Your task to perform on an android device: Open calendar and show me the fourth week of next month Image 0: 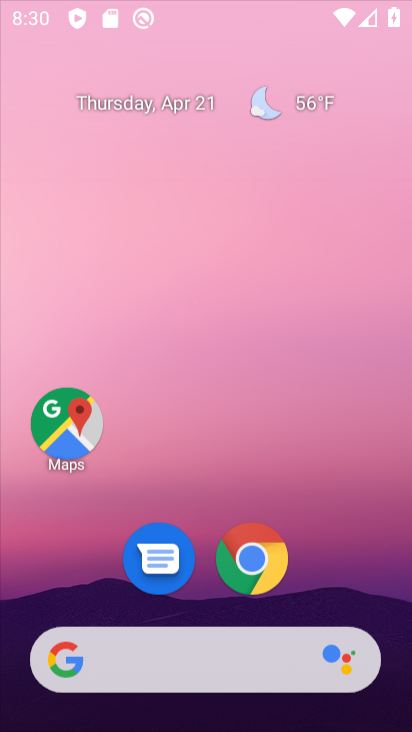
Step 0: click (293, 158)
Your task to perform on an android device: Open calendar and show me the fourth week of next month Image 1: 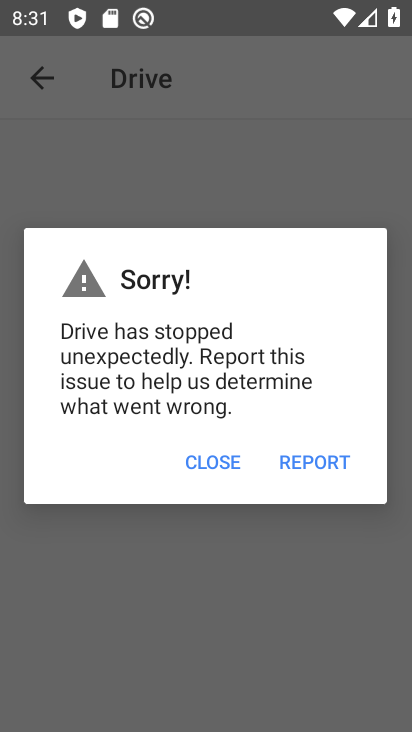
Step 1: press home button
Your task to perform on an android device: Open calendar and show me the fourth week of next month Image 2: 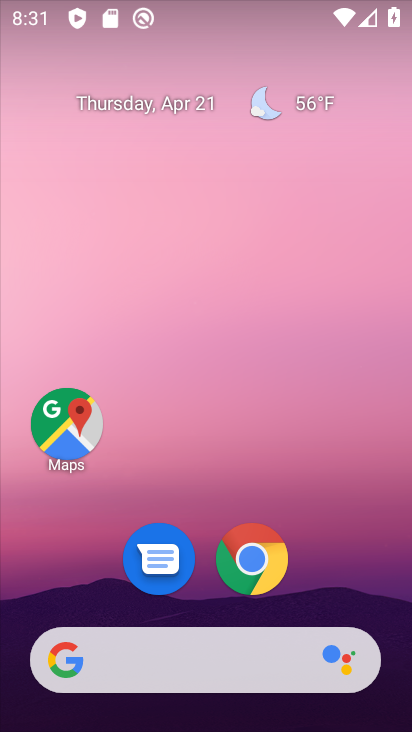
Step 2: drag from (299, 455) to (275, 215)
Your task to perform on an android device: Open calendar and show me the fourth week of next month Image 3: 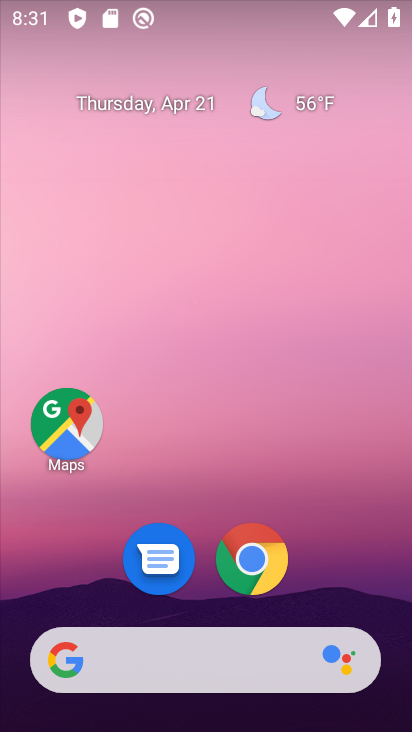
Step 3: drag from (330, 556) to (284, 141)
Your task to perform on an android device: Open calendar and show me the fourth week of next month Image 4: 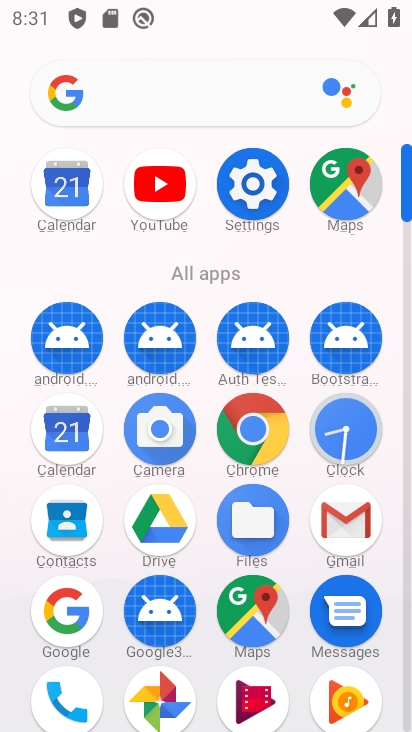
Step 4: click (79, 198)
Your task to perform on an android device: Open calendar and show me the fourth week of next month Image 5: 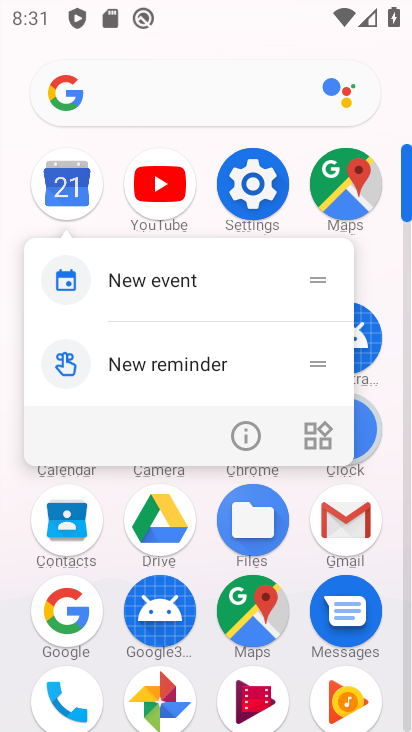
Step 5: click (44, 470)
Your task to perform on an android device: Open calendar and show me the fourth week of next month Image 6: 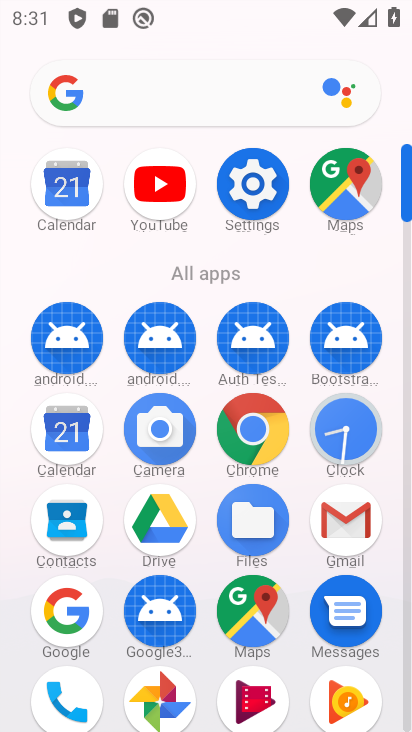
Step 6: click (71, 426)
Your task to perform on an android device: Open calendar and show me the fourth week of next month Image 7: 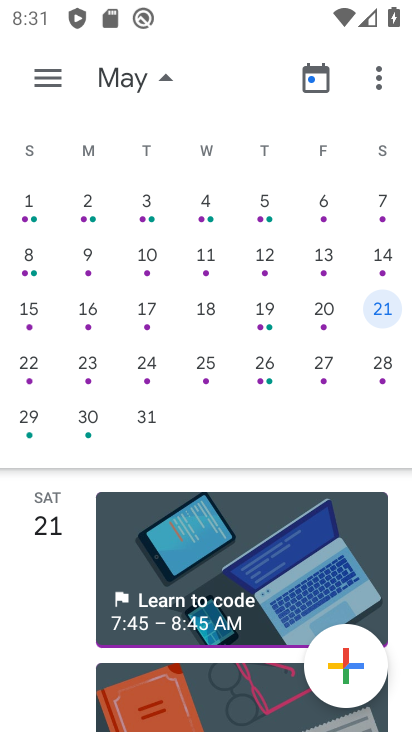
Step 7: click (25, 372)
Your task to perform on an android device: Open calendar and show me the fourth week of next month Image 8: 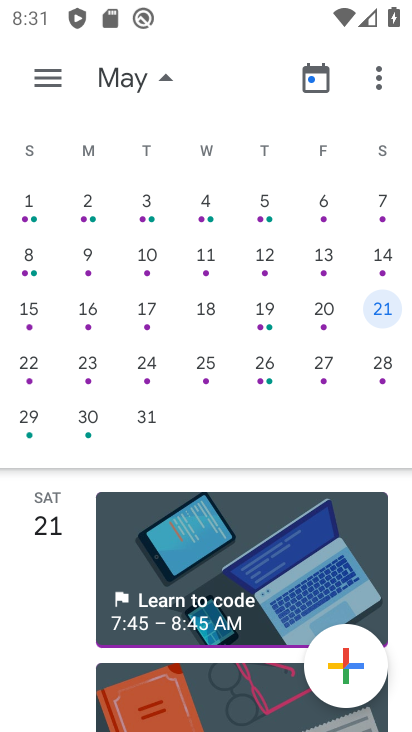
Step 8: click (29, 371)
Your task to perform on an android device: Open calendar and show me the fourth week of next month Image 9: 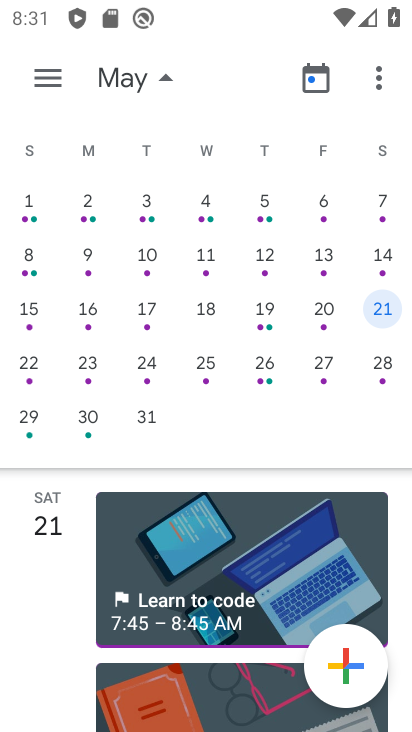
Step 9: click (85, 367)
Your task to perform on an android device: Open calendar and show me the fourth week of next month Image 10: 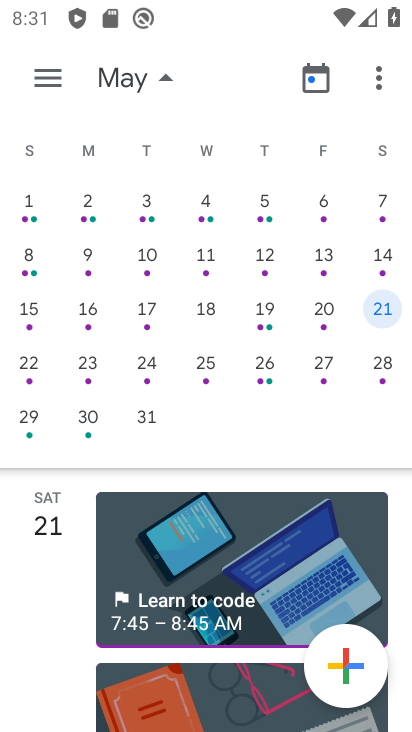
Step 10: click (92, 374)
Your task to perform on an android device: Open calendar and show me the fourth week of next month Image 11: 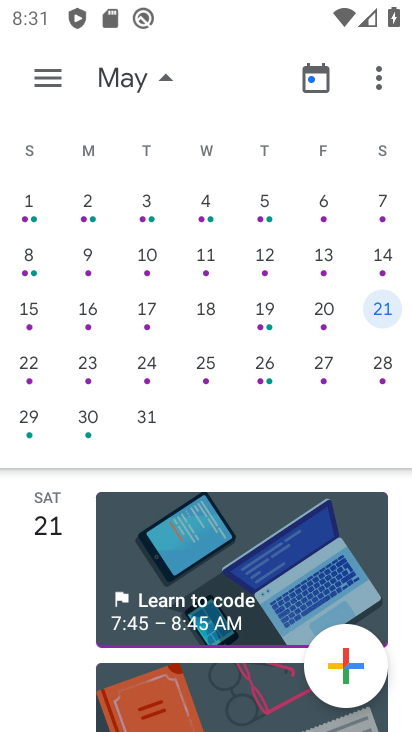
Step 11: click (85, 378)
Your task to perform on an android device: Open calendar and show me the fourth week of next month Image 12: 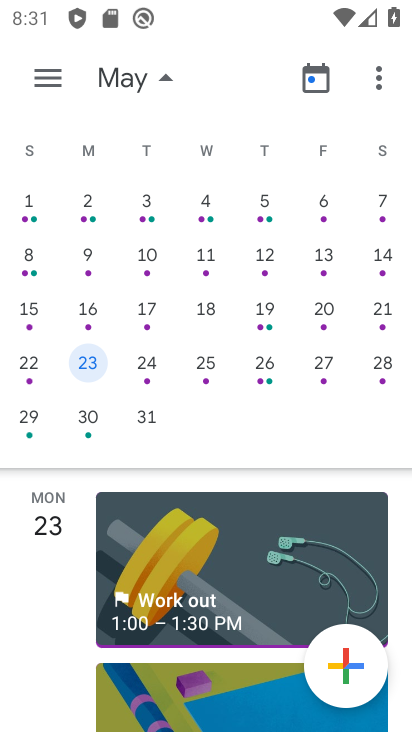
Step 12: click (145, 375)
Your task to perform on an android device: Open calendar and show me the fourth week of next month Image 13: 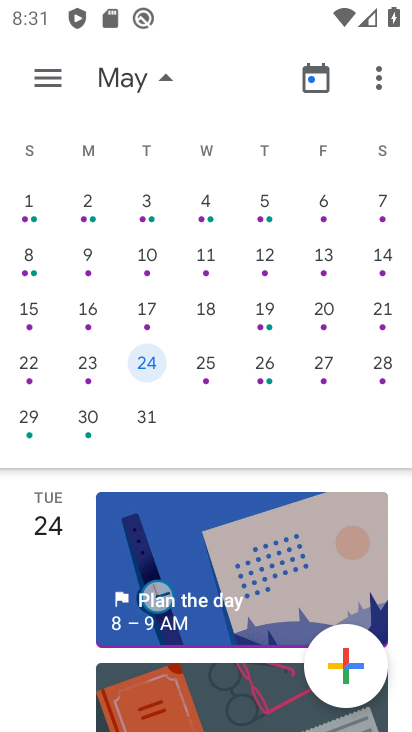
Step 13: click (213, 378)
Your task to perform on an android device: Open calendar and show me the fourth week of next month Image 14: 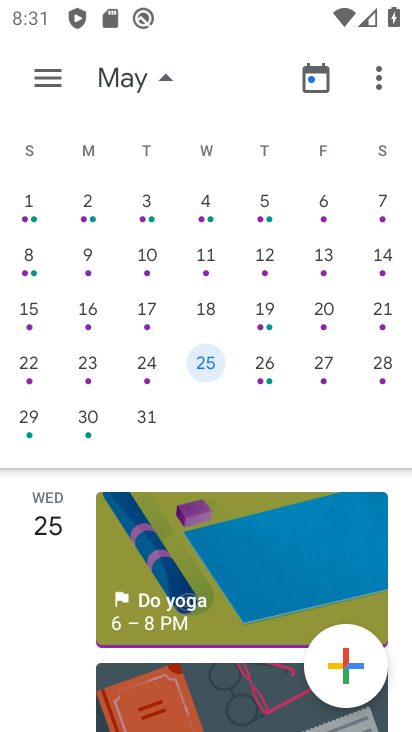
Step 14: click (267, 369)
Your task to perform on an android device: Open calendar and show me the fourth week of next month Image 15: 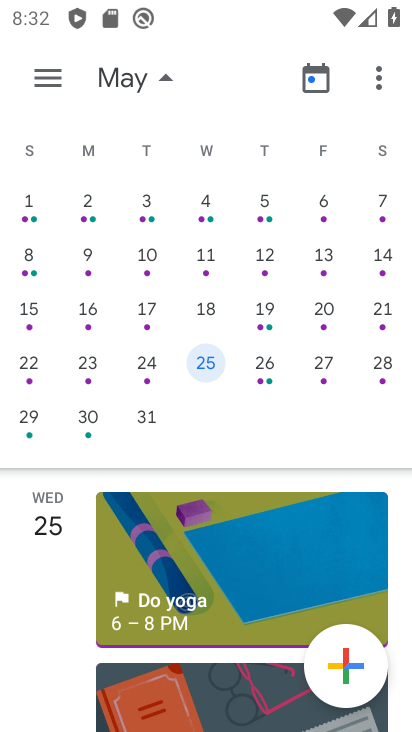
Step 15: click (321, 365)
Your task to perform on an android device: Open calendar and show me the fourth week of next month Image 16: 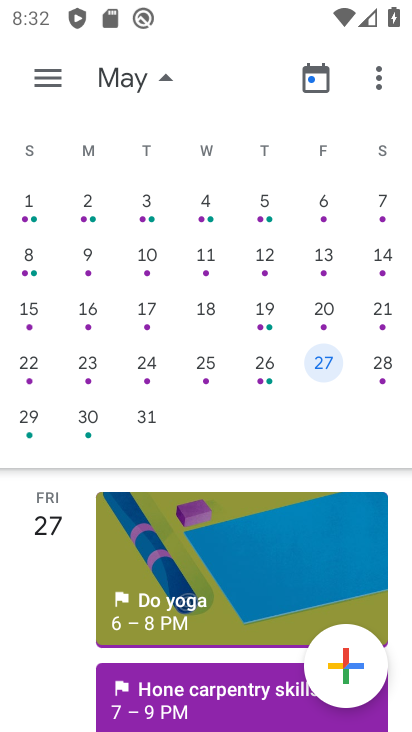
Step 16: click (385, 368)
Your task to perform on an android device: Open calendar and show me the fourth week of next month Image 17: 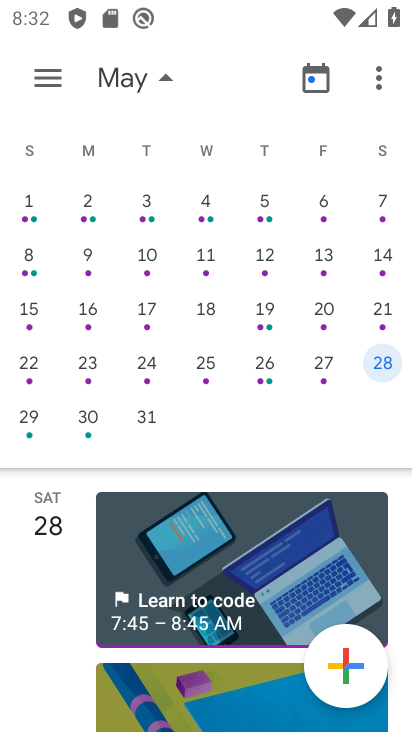
Step 17: task complete